Your task to perform on an android device: change text size in settings app Image 0: 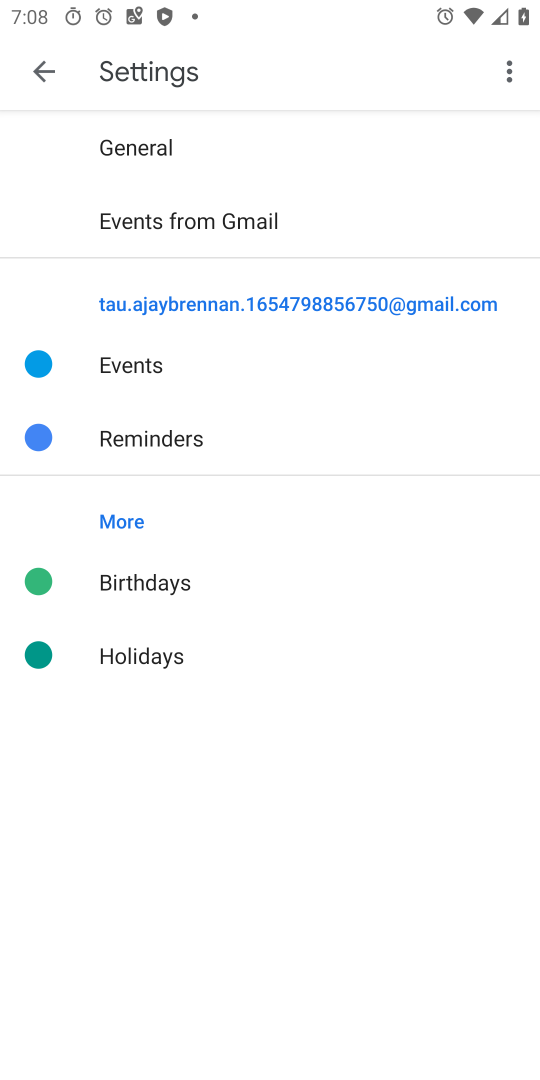
Step 0: press home button
Your task to perform on an android device: change text size in settings app Image 1: 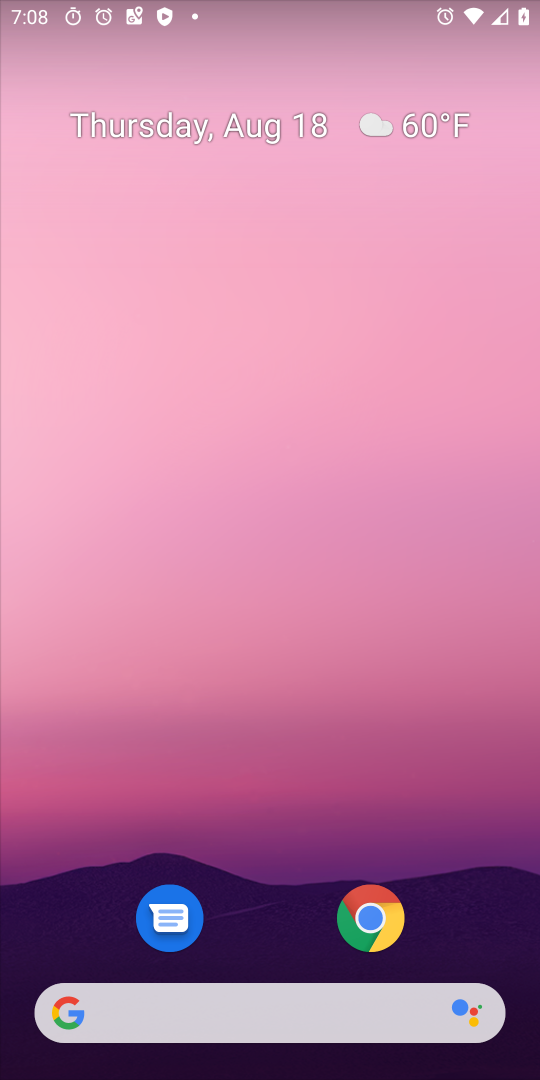
Step 1: drag from (315, 939) to (310, 111)
Your task to perform on an android device: change text size in settings app Image 2: 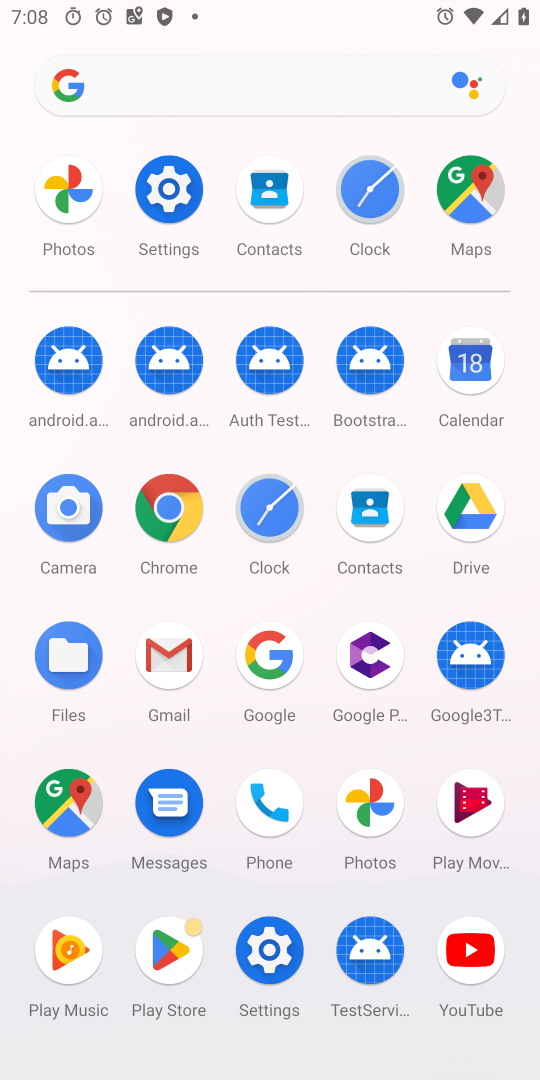
Step 2: click (185, 181)
Your task to perform on an android device: change text size in settings app Image 3: 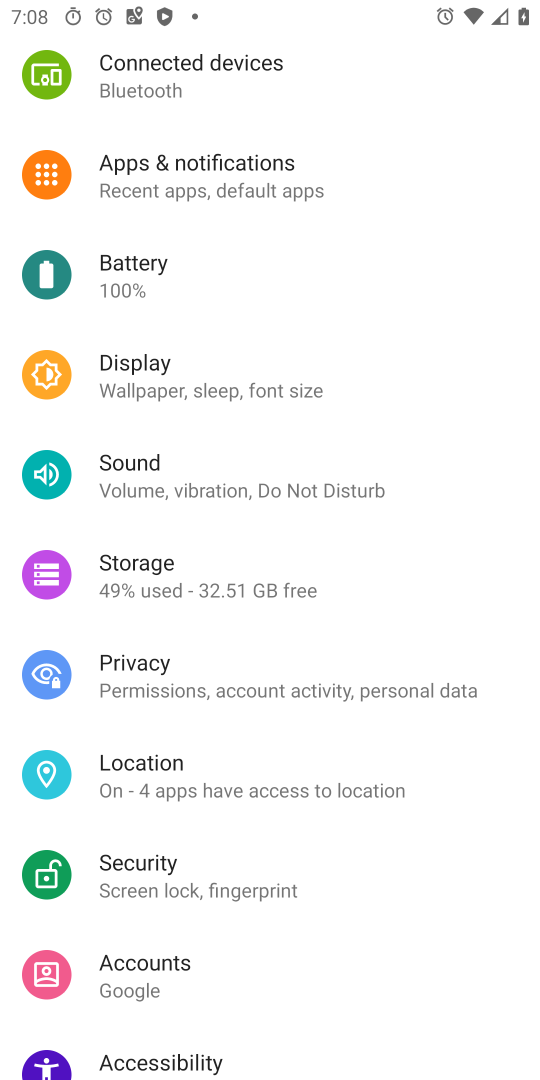
Step 3: click (140, 387)
Your task to perform on an android device: change text size in settings app Image 4: 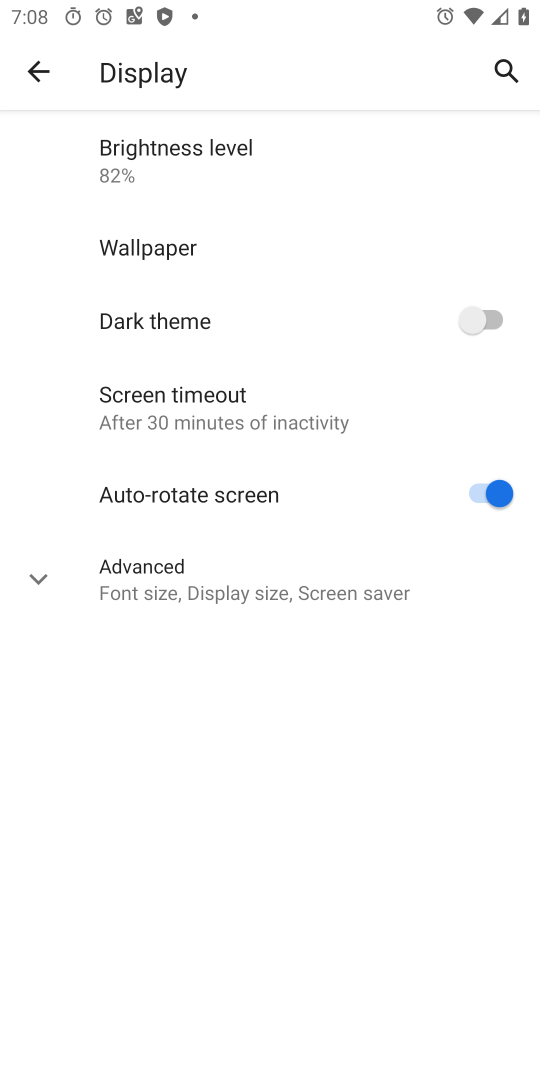
Step 4: click (124, 593)
Your task to perform on an android device: change text size in settings app Image 5: 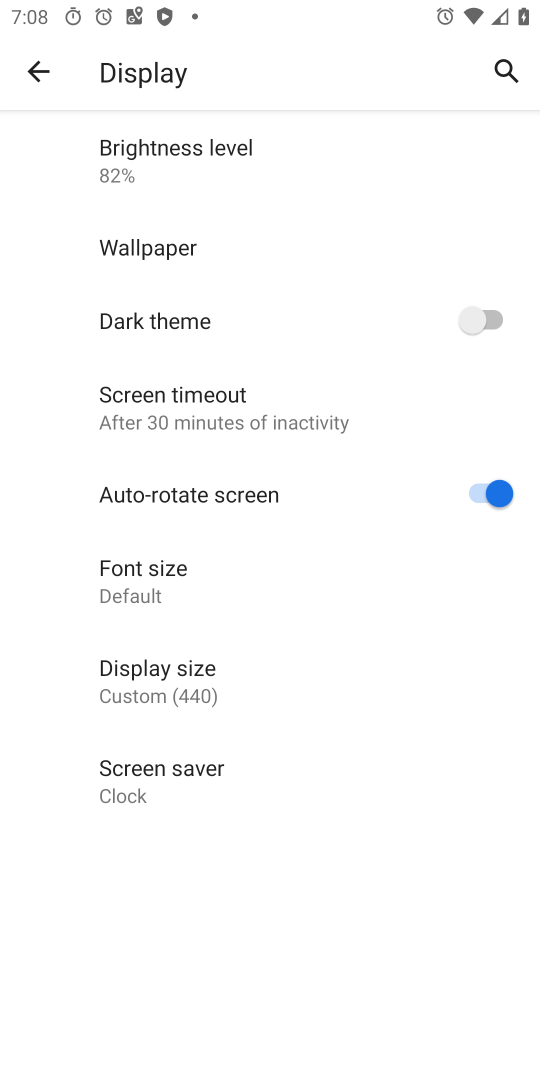
Step 5: click (122, 588)
Your task to perform on an android device: change text size in settings app Image 6: 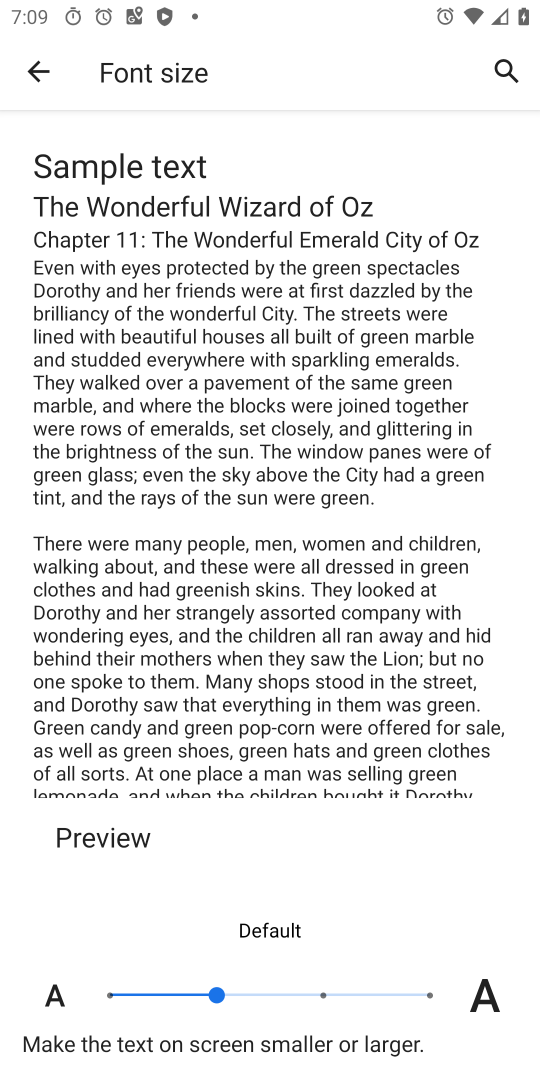
Step 6: click (318, 1001)
Your task to perform on an android device: change text size in settings app Image 7: 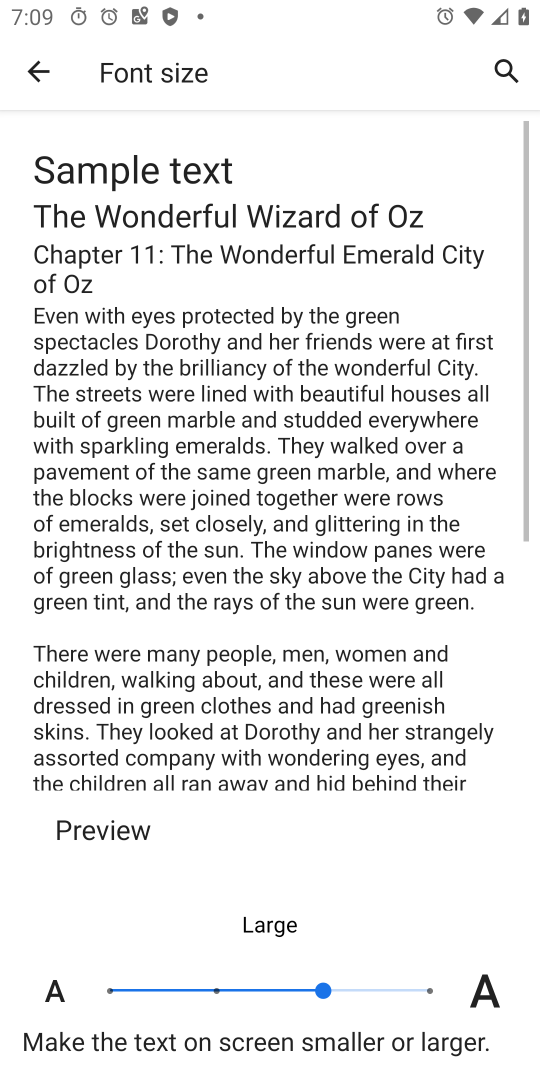
Step 7: task complete